Your task to perform on an android device: check data usage Image 0: 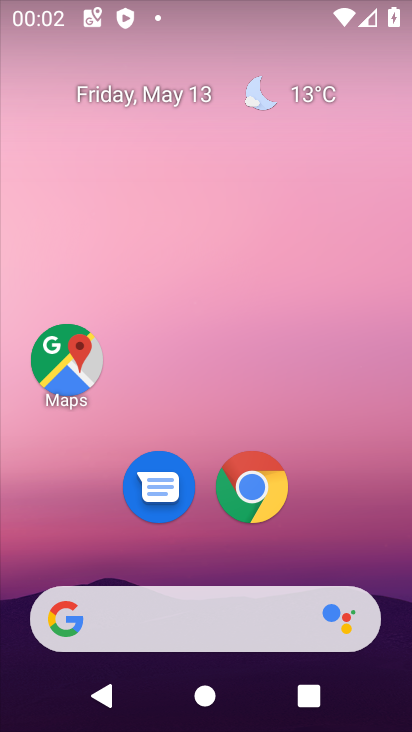
Step 0: drag from (184, 539) to (205, 54)
Your task to perform on an android device: check data usage Image 1: 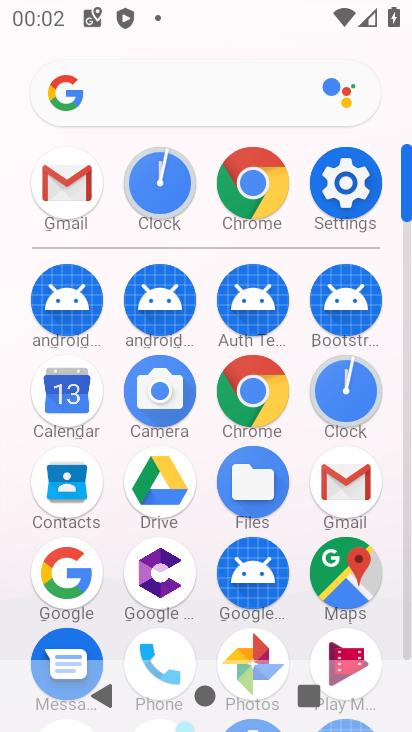
Step 1: click (350, 179)
Your task to perform on an android device: check data usage Image 2: 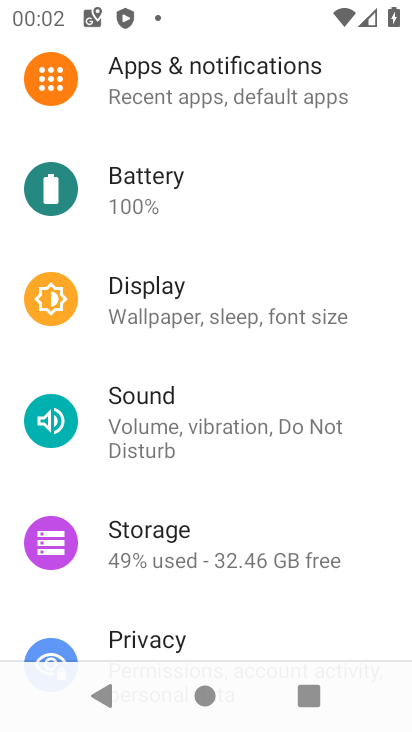
Step 2: drag from (218, 112) to (148, 544)
Your task to perform on an android device: check data usage Image 3: 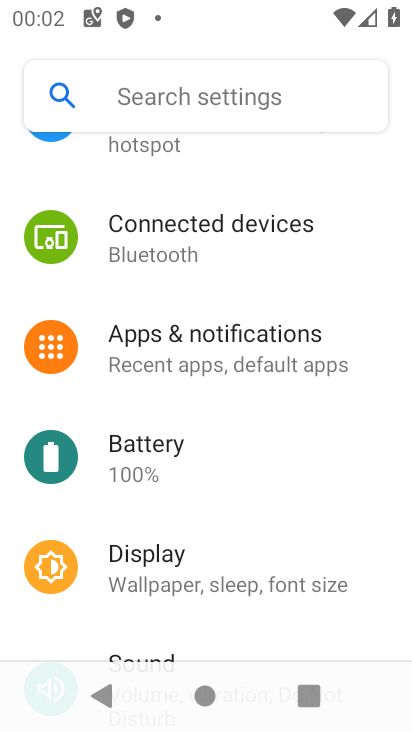
Step 3: drag from (164, 248) to (159, 601)
Your task to perform on an android device: check data usage Image 4: 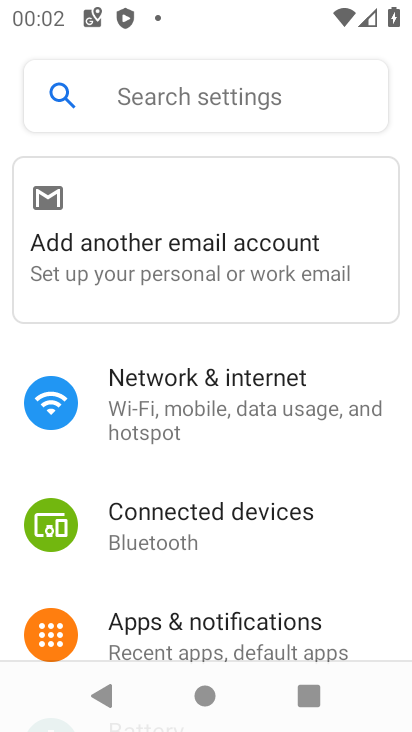
Step 4: click (170, 394)
Your task to perform on an android device: check data usage Image 5: 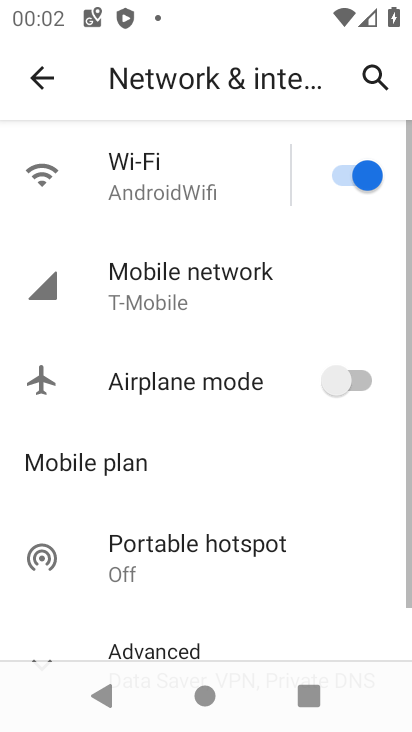
Step 5: task complete